Your task to perform on an android device: turn off airplane mode Image 0: 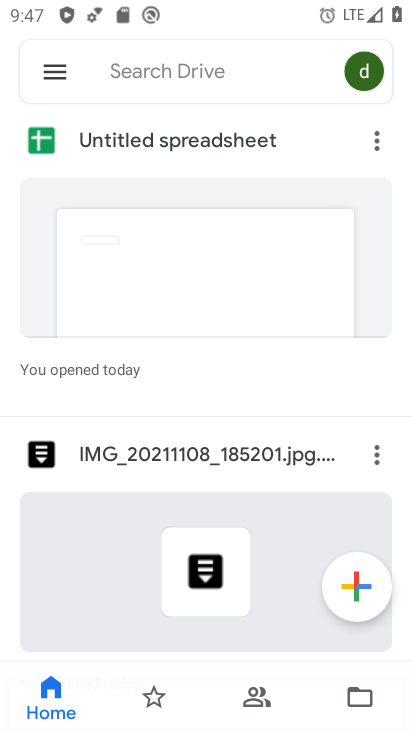
Step 0: press home button
Your task to perform on an android device: turn off airplane mode Image 1: 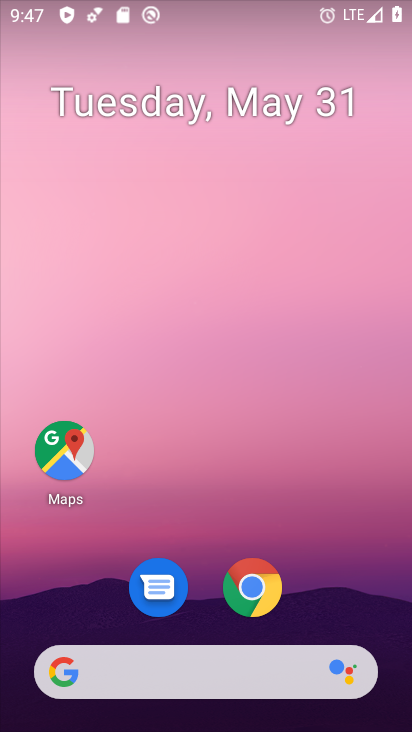
Step 1: drag from (336, 609) to (346, 93)
Your task to perform on an android device: turn off airplane mode Image 2: 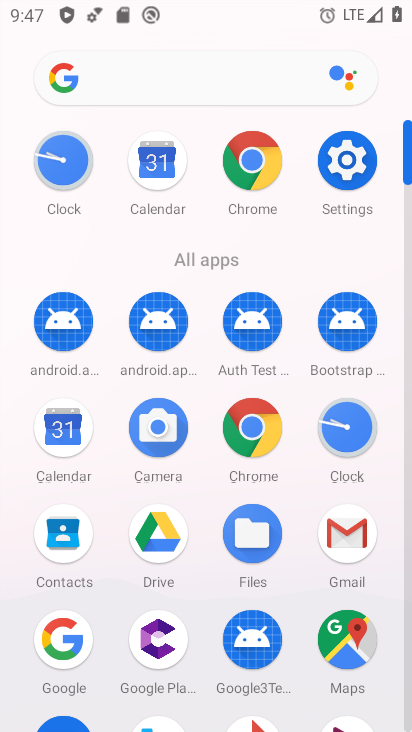
Step 2: click (356, 171)
Your task to perform on an android device: turn off airplane mode Image 3: 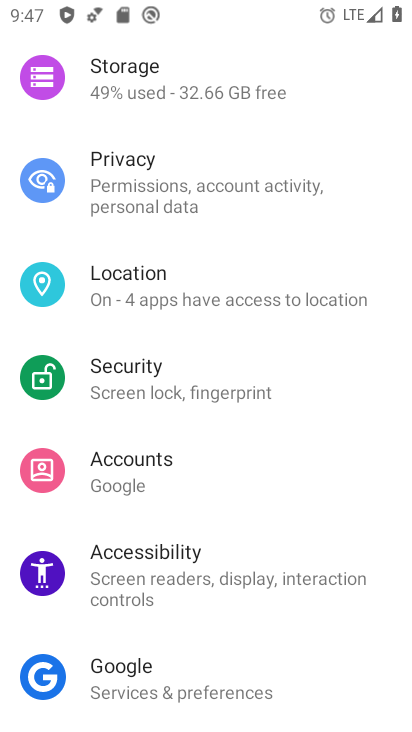
Step 3: drag from (361, 219) to (362, 335)
Your task to perform on an android device: turn off airplane mode Image 4: 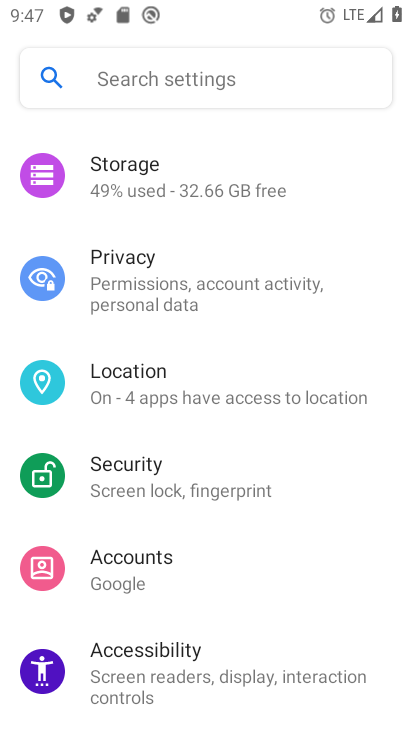
Step 4: drag from (362, 211) to (354, 339)
Your task to perform on an android device: turn off airplane mode Image 5: 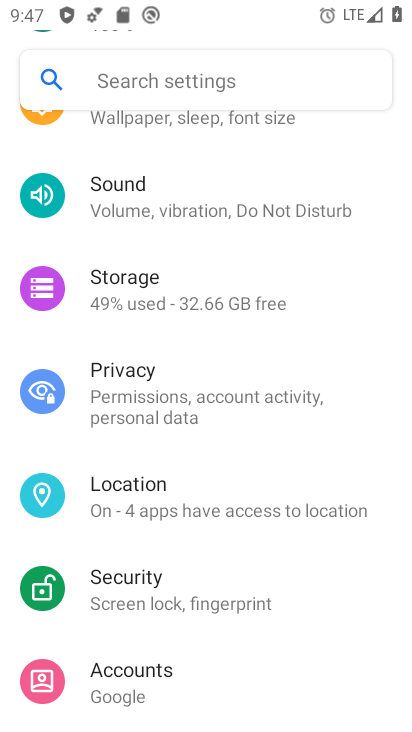
Step 5: drag from (363, 244) to (380, 422)
Your task to perform on an android device: turn off airplane mode Image 6: 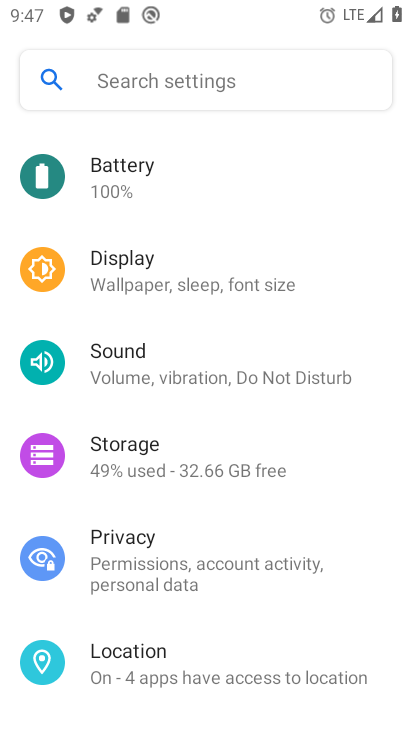
Step 6: drag from (353, 230) to (366, 379)
Your task to perform on an android device: turn off airplane mode Image 7: 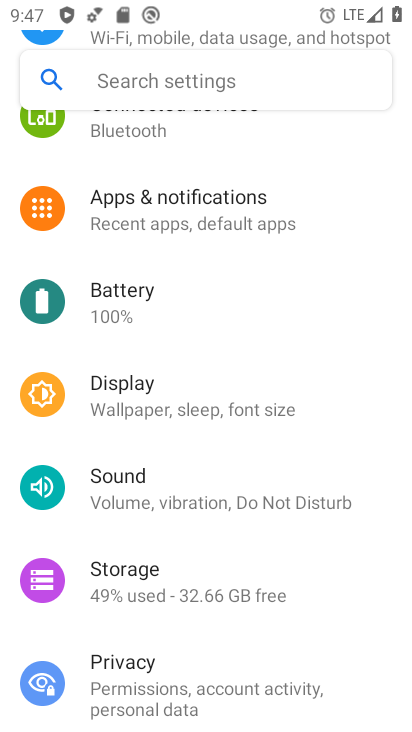
Step 7: drag from (355, 256) to (362, 406)
Your task to perform on an android device: turn off airplane mode Image 8: 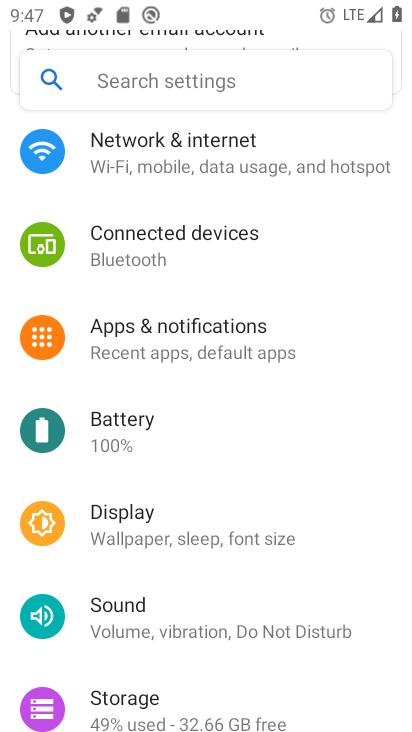
Step 8: drag from (325, 232) to (341, 402)
Your task to perform on an android device: turn off airplane mode Image 9: 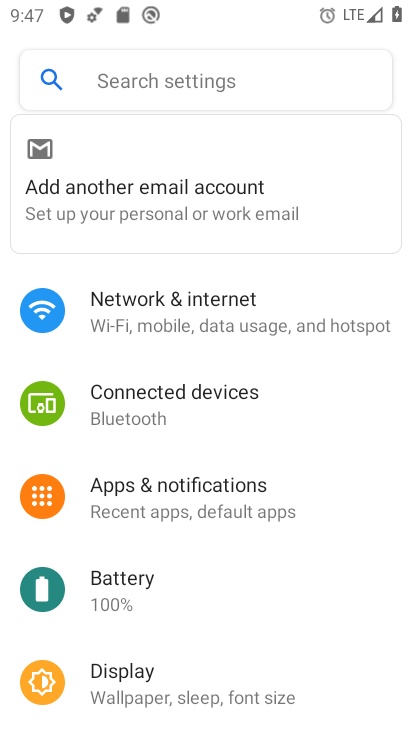
Step 9: drag from (354, 168) to (353, 362)
Your task to perform on an android device: turn off airplane mode Image 10: 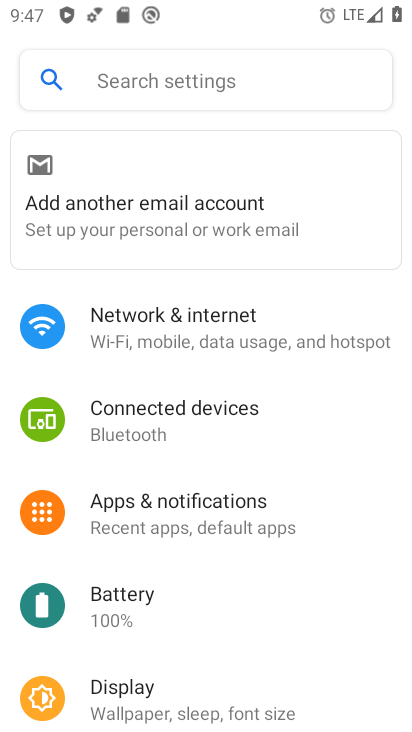
Step 10: click (245, 330)
Your task to perform on an android device: turn off airplane mode Image 11: 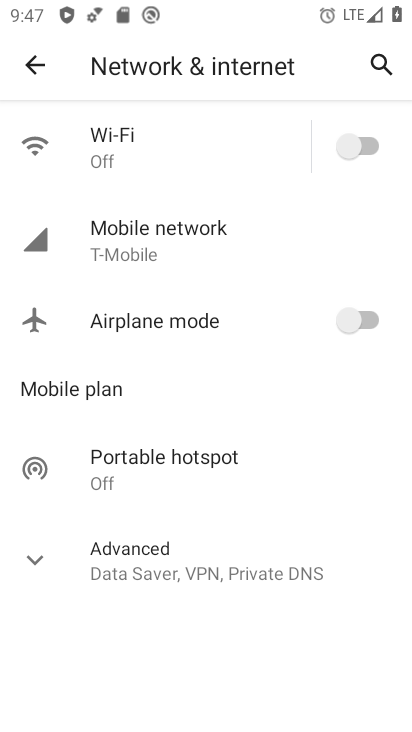
Step 11: task complete